Your task to perform on an android device: turn off picture-in-picture Image 0: 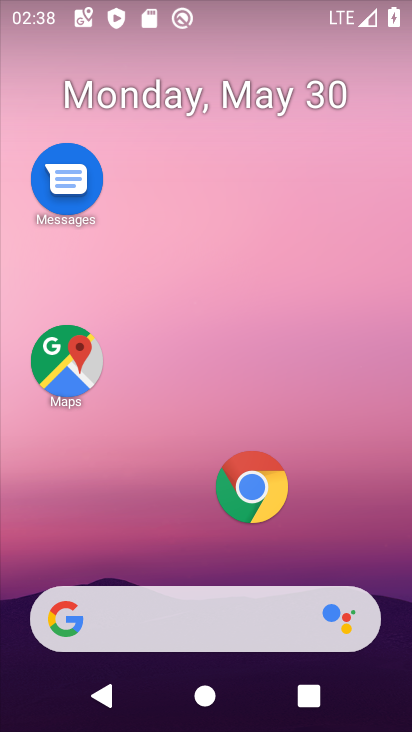
Step 0: drag from (167, 560) to (244, 133)
Your task to perform on an android device: turn off picture-in-picture Image 1: 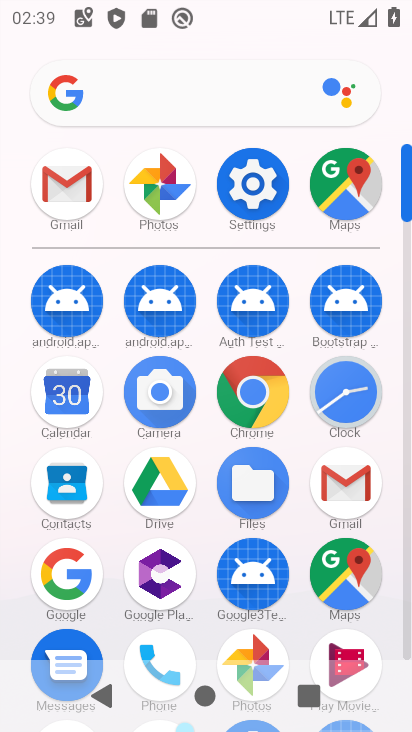
Step 1: drag from (178, 580) to (221, 136)
Your task to perform on an android device: turn off picture-in-picture Image 2: 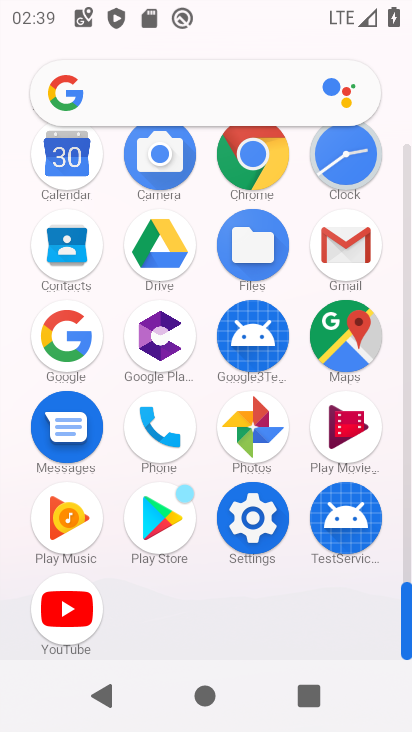
Step 2: click (249, 532)
Your task to perform on an android device: turn off picture-in-picture Image 3: 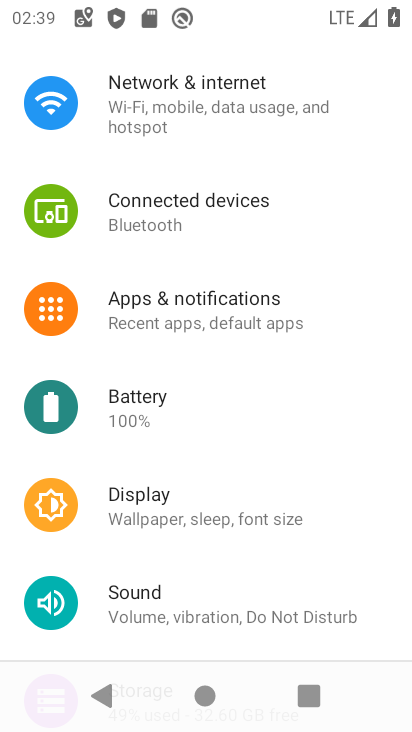
Step 3: click (163, 315)
Your task to perform on an android device: turn off picture-in-picture Image 4: 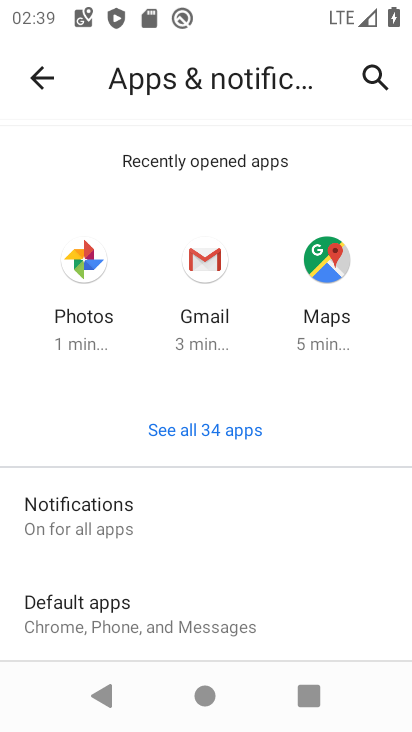
Step 4: drag from (134, 634) to (179, 227)
Your task to perform on an android device: turn off picture-in-picture Image 5: 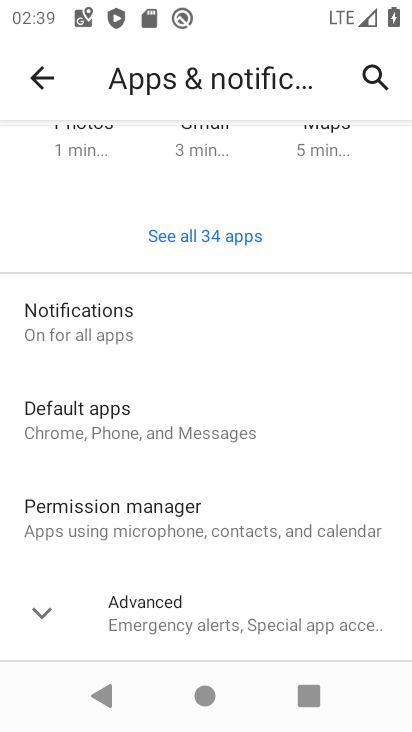
Step 5: click (141, 620)
Your task to perform on an android device: turn off picture-in-picture Image 6: 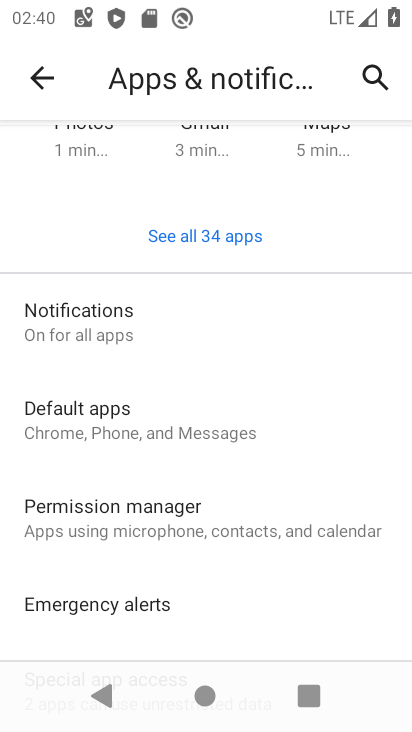
Step 6: drag from (140, 618) to (192, 254)
Your task to perform on an android device: turn off picture-in-picture Image 7: 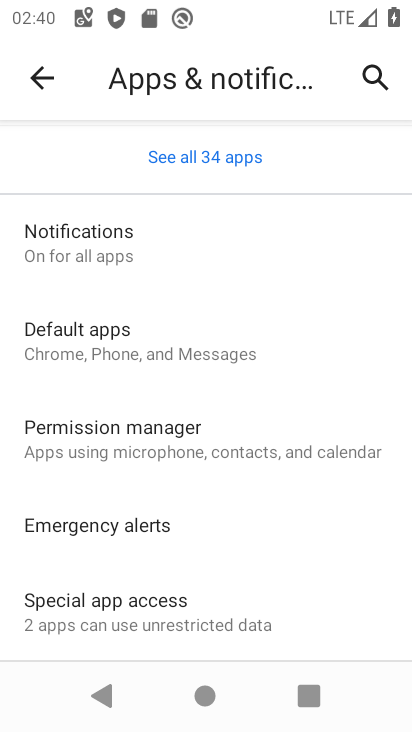
Step 7: click (148, 618)
Your task to perform on an android device: turn off picture-in-picture Image 8: 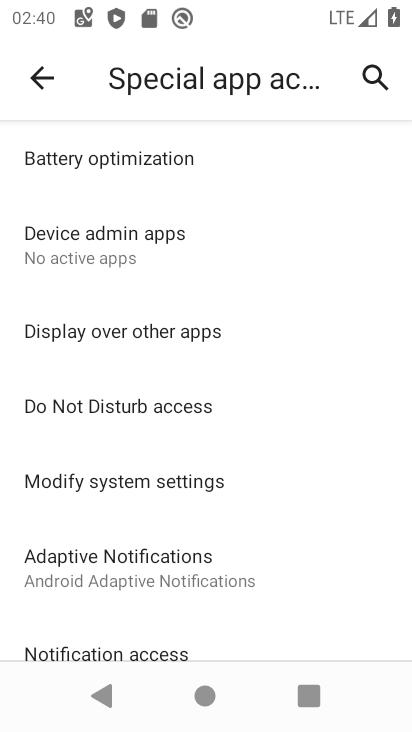
Step 8: drag from (208, 544) to (258, 195)
Your task to perform on an android device: turn off picture-in-picture Image 9: 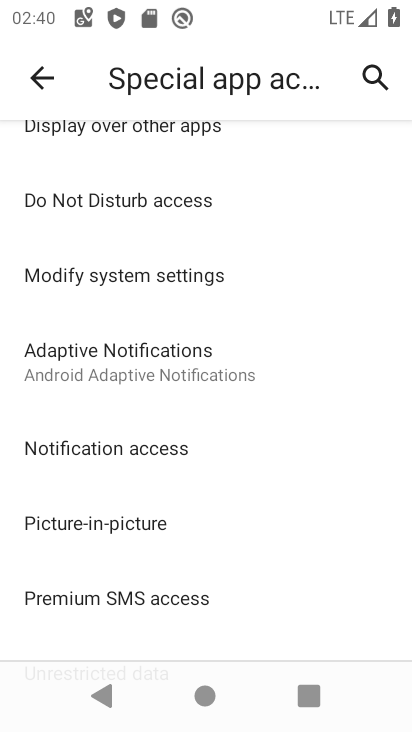
Step 9: click (139, 533)
Your task to perform on an android device: turn off picture-in-picture Image 10: 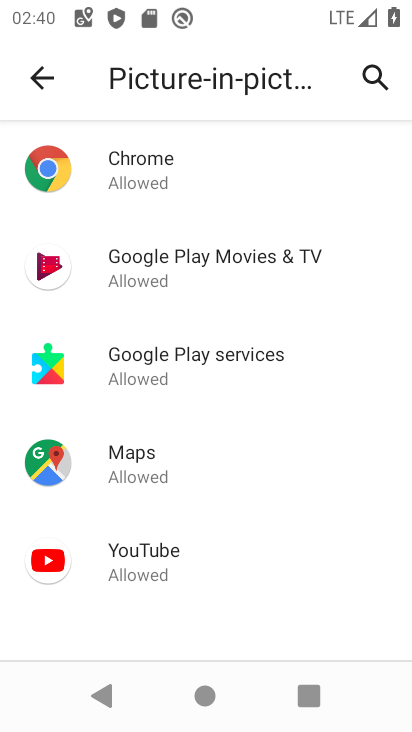
Step 10: drag from (188, 577) to (259, 126)
Your task to perform on an android device: turn off picture-in-picture Image 11: 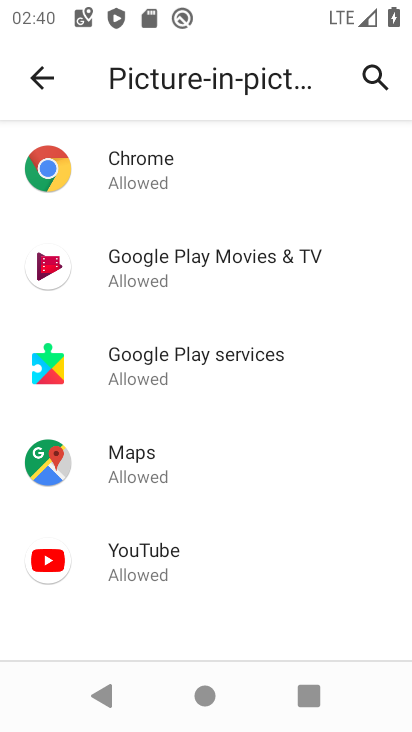
Step 11: click (126, 208)
Your task to perform on an android device: turn off picture-in-picture Image 12: 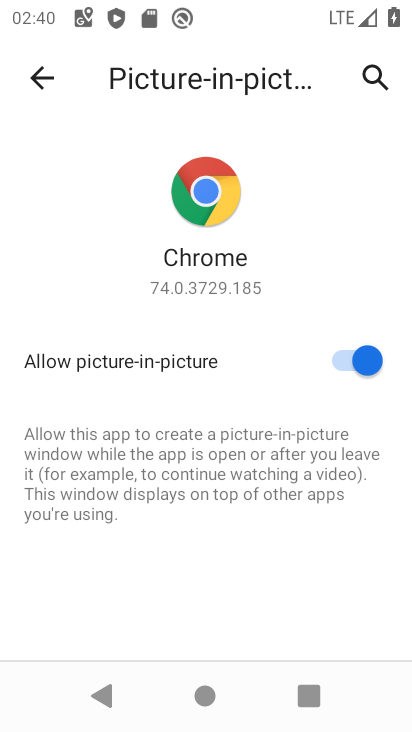
Step 12: click (333, 366)
Your task to perform on an android device: turn off picture-in-picture Image 13: 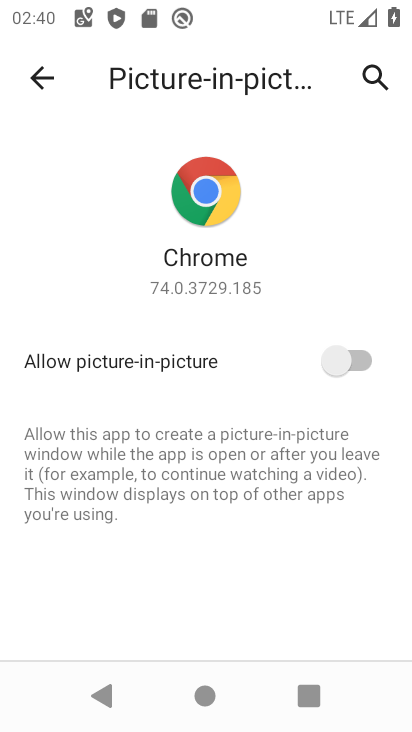
Step 13: task complete